Your task to perform on an android device: turn off notifications settings in the gmail app Image 0: 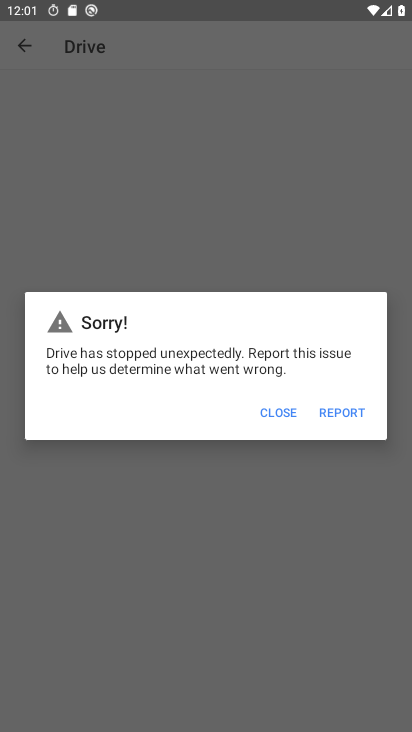
Step 0: press home button
Your task to perform on an android device: turn off notifications settings in the gmail app Image 1: 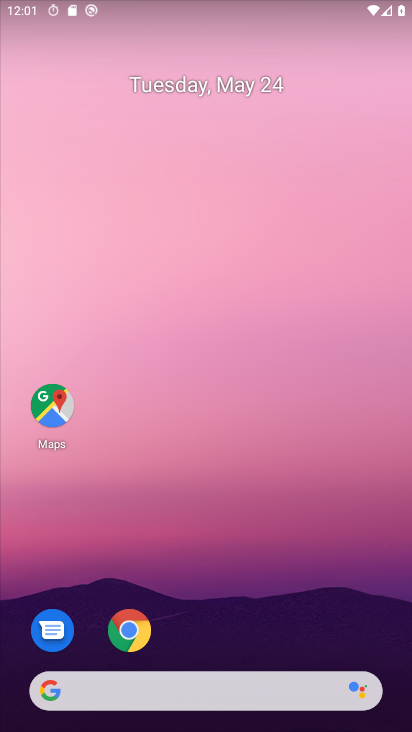
Step 1: drag from (235, 641) to (274, 52)
Your task to perform on an android device: turn off notifications settings in the gmail app Image 2: 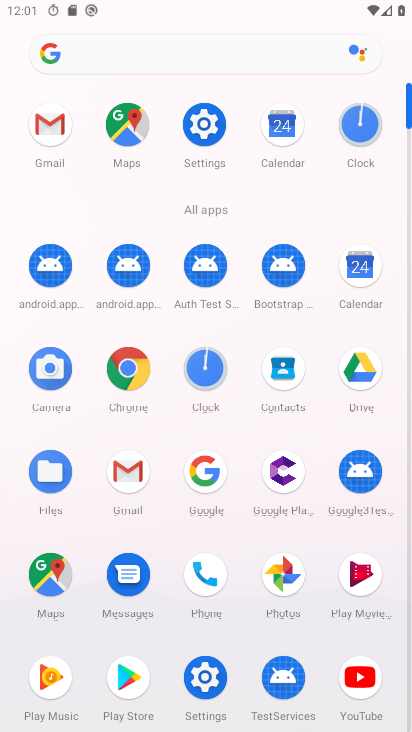
Step 2: click (131, 477)
Your task to perform on an android device: turn off notifications settings in the gmail app Image 3: 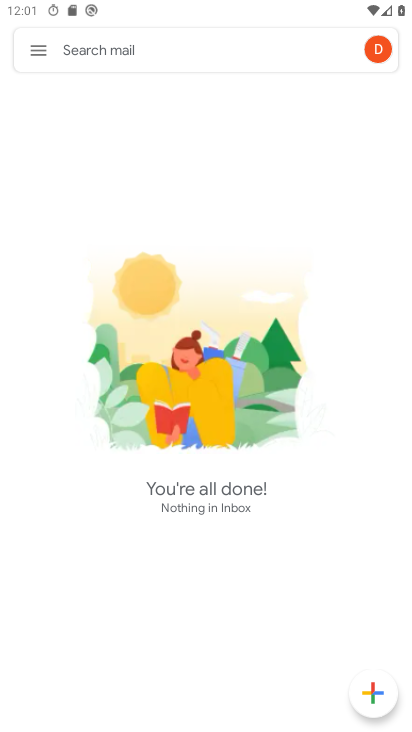
Step 3: click (27, 46)
Your task to perform on an android device: turn off notifications settings in the gmail app Image 4: 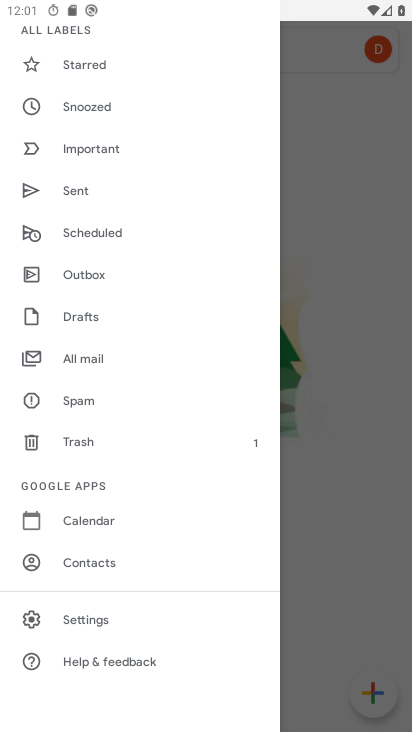
Step 4: click (109, 627)
Your task to perform on an android device: turn off notifications settings in the gmail app Image 5: 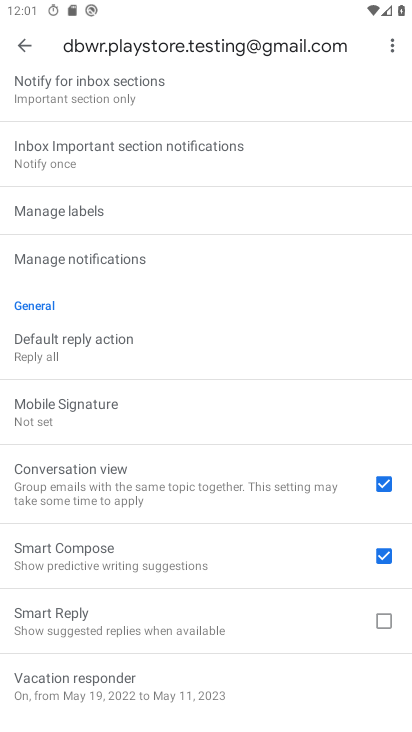
Step 5: drag from (160, 219) to (158, 389)
Your task to perform on an android device: turn off notifications settings in the gmail app Image 6: 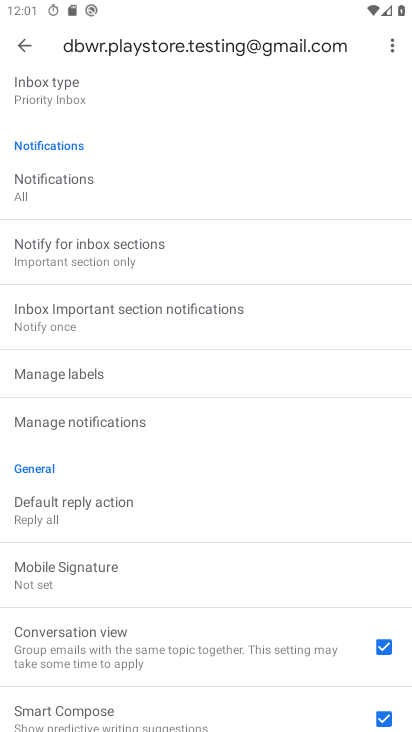
Step 6: click (24, 47)
Your task to perform on an android device: turn off notifications settings in the gmail app Image 7: 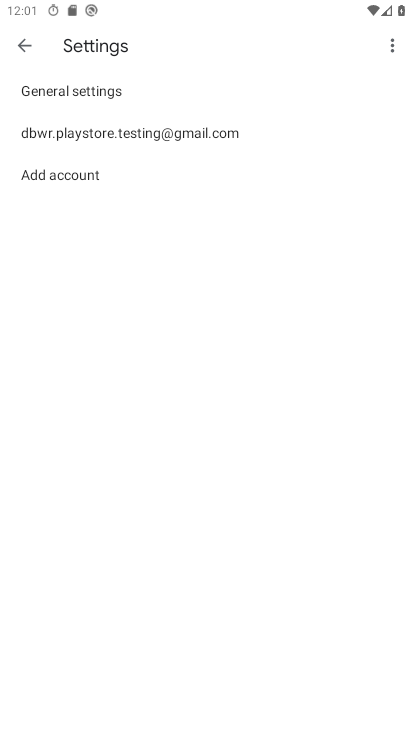
Step 7: click (123, 85)
Your task to perform on an android device: turn off notifications settings in the gmail app Image 8: 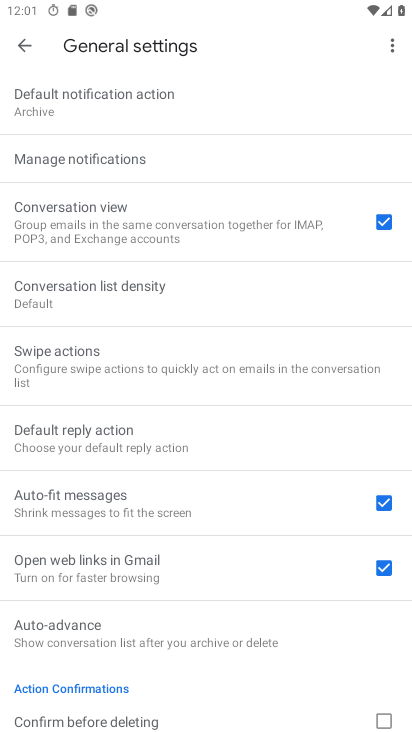
Step 8: click (122, 162)
Your task to perform on an android device: turn off notifications settings in the gmail app Image 9: 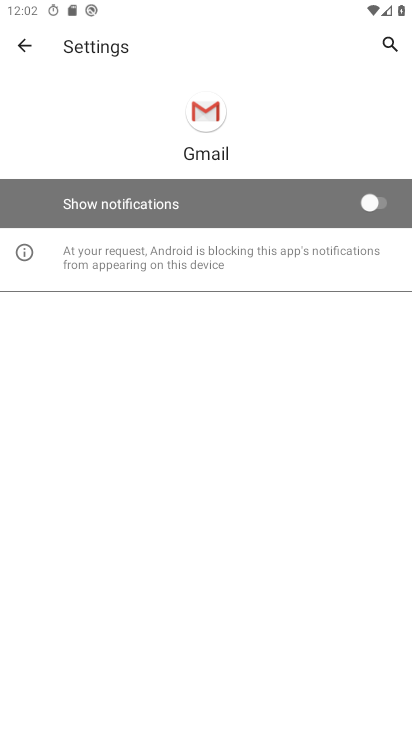
Step 9: task complete